Your task to perform on an android device: turn on improve location accuracy Image 0: 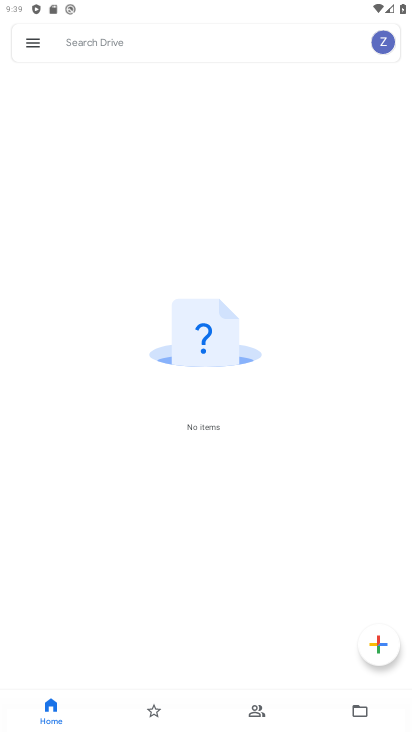
Step 0: press home button
Your task to perform on an android device: turn on improve location accuracy Image 1: 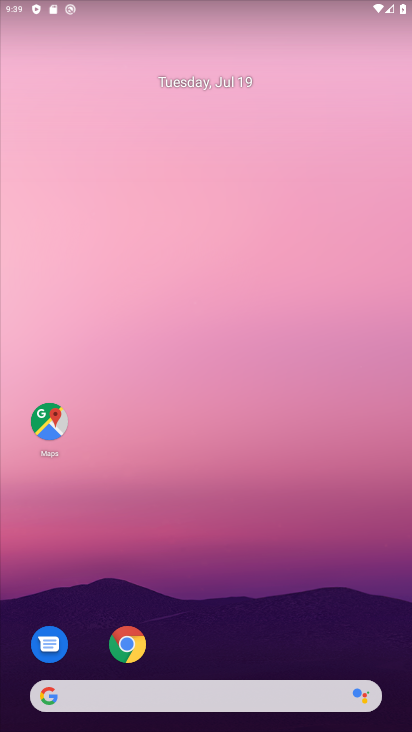
Step 1: drag from (276, 620) to (0, 202)
Your task to perform on an android device: turn on improve location accuracy Image 2: 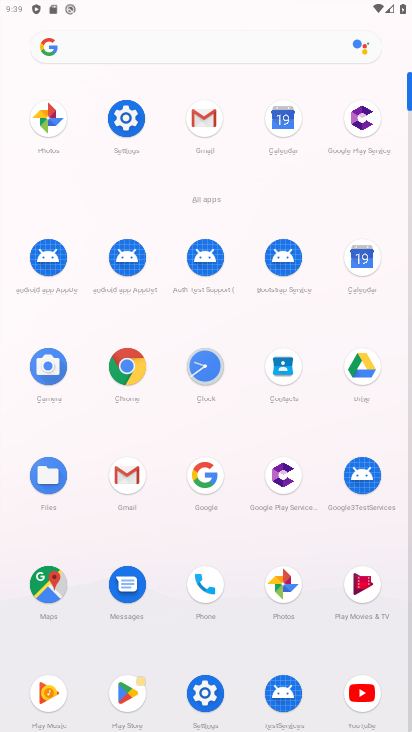
Step 2: click (211, 705)
Your task to perform on an android device: turn on improve location accuracy Image 3: 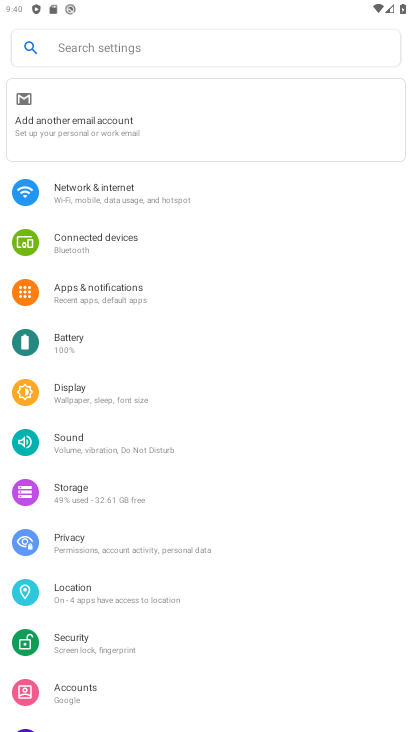
Step 3: click (127, 590)
Your task to perform on an android device: turn on improve location accuracy Image 4: 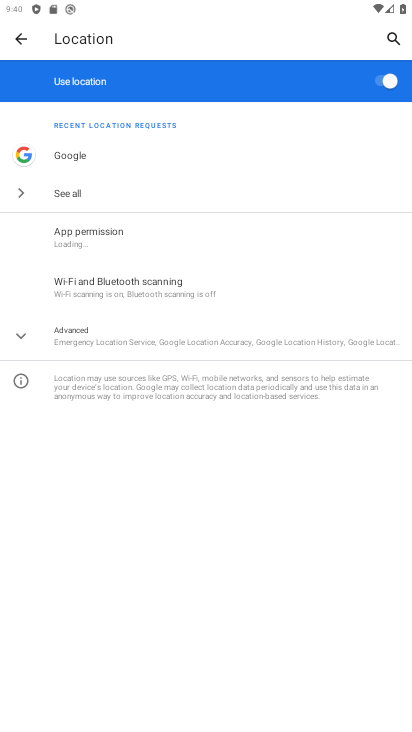
Step 4: task complete